Your task to perform on an android device: find snoozed emails in the gmail app Image 0: 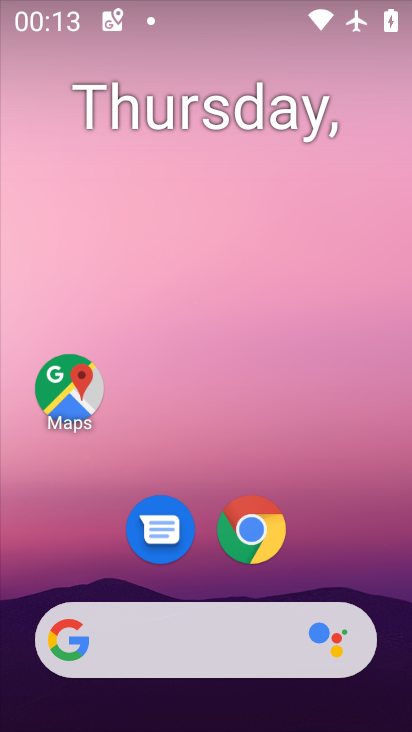
Step 0: drag from (400, 624) to (315, 139)
Your task to perform on an android device: find snoozed emails in the gmail app Image 1: 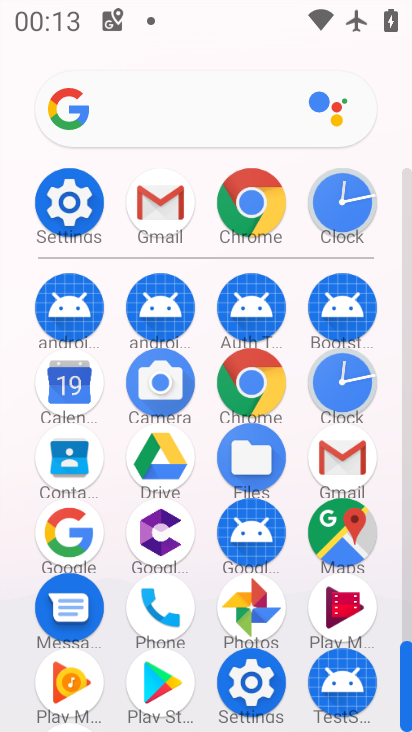
Step 1: click (342, 455)
Your task to perform on an android device: find snoozed emails in the gmail app Image 2: 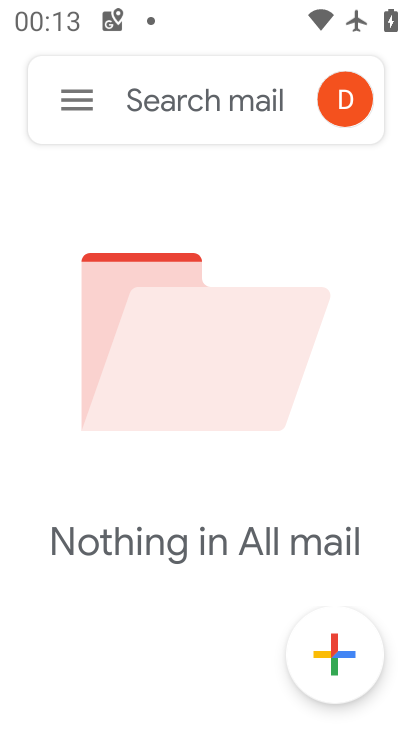
Step 2: click (77, 102)
Your task to perform on an android device: find snoozed emails in the gmail app Image 3: 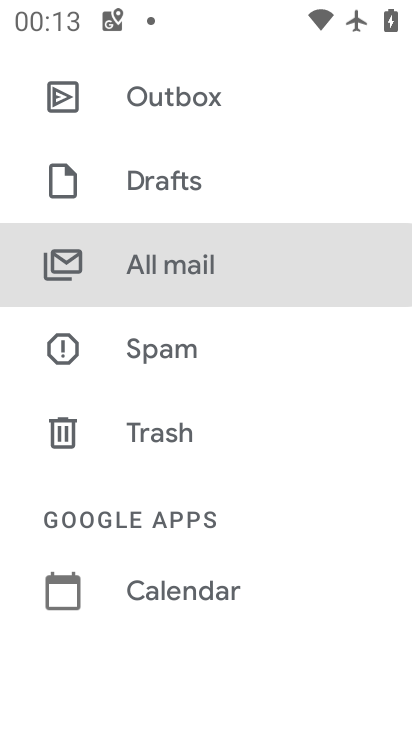
Step 3: drag from (295, 188) to (312, 555)
Your task to perform on an android device: find snoozed emails in the gmail app Image 4: 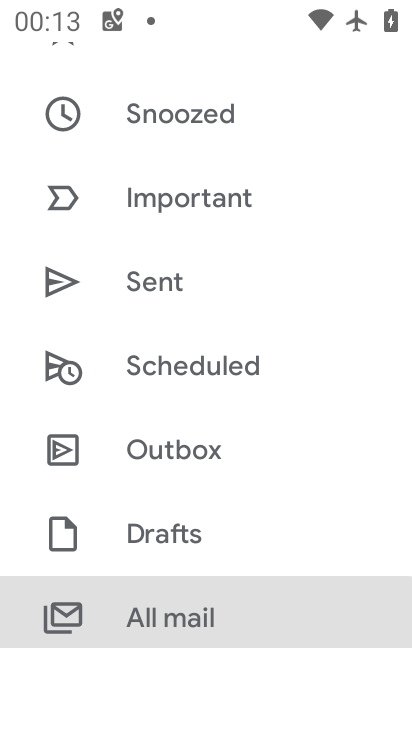
Step 4: drag from (344, 290) to (328, 502)
Your task to perform on an android device: find snoozed emails in the gmail app Image 5: 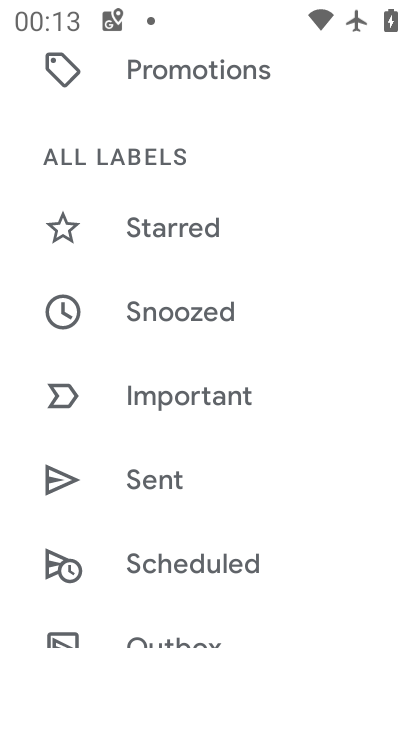
Step 5: click (160, 310)
Your task to perform on an android device: find snoozed emails in the gmail app Image 6: 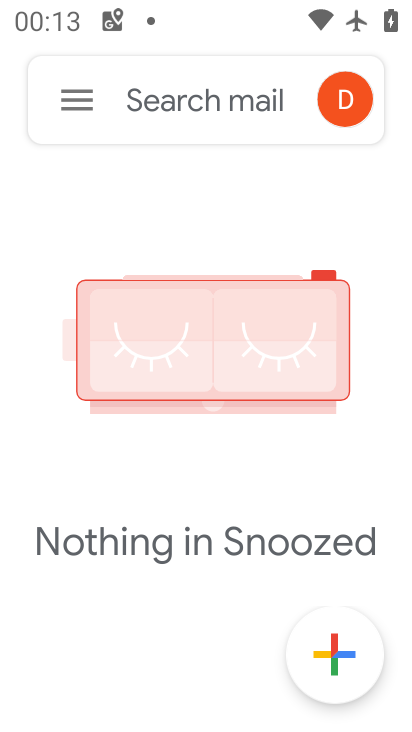
Step 6: task complete